Your task to perform on an android device: When is my next meeting? Image 0: 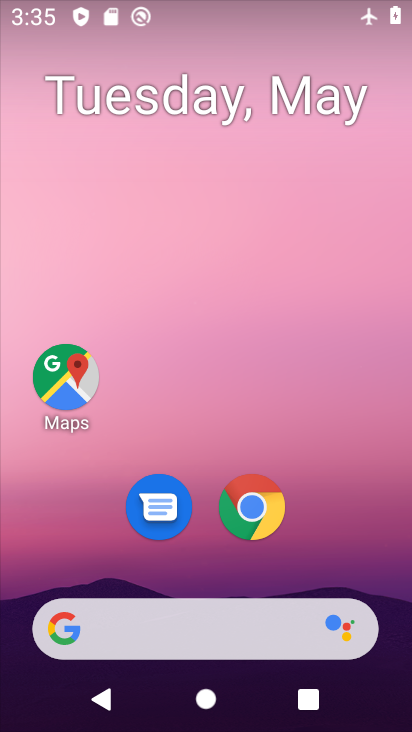
Step 0: drag from (366, 516) to (336, 86)
Your task to perform on an android device: When is my next meeting? Image 1: 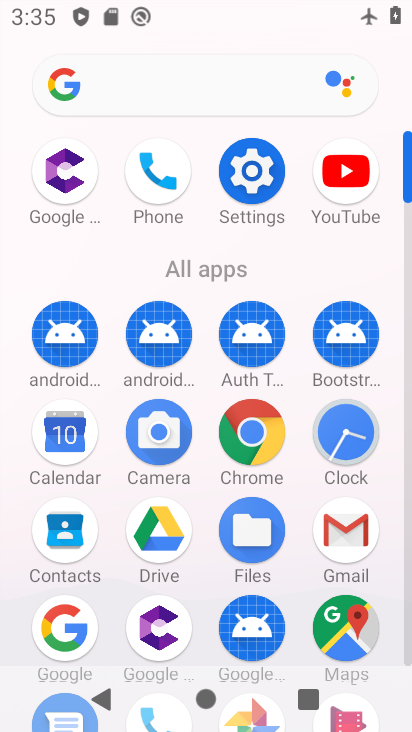
Step 1: click (75, 448)
Your task to perform on an android device: When is my next meeting? Image 2: 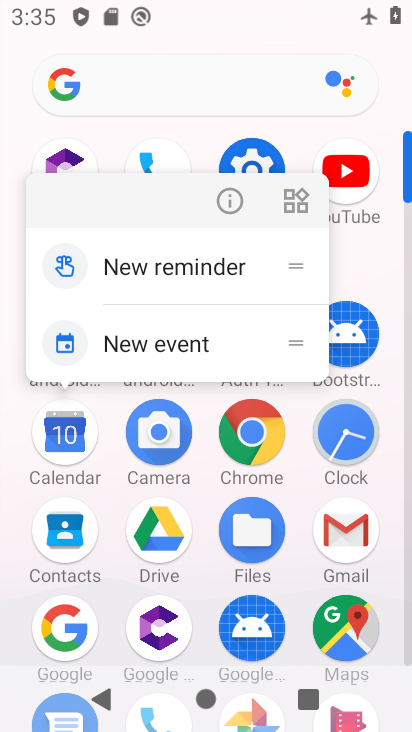
Step 2: click (75, 447)
Your task to perform on an android device: When is my next meeting? Image 3: 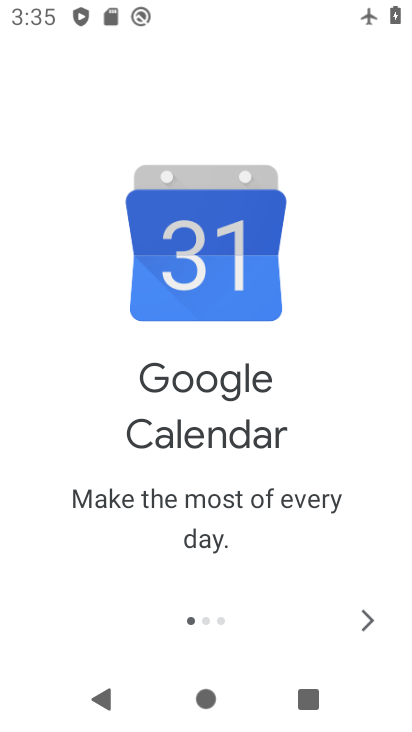
Step 3: click (364, 623)
Your task to perform on an android device: When is my next meeting? Image 4: 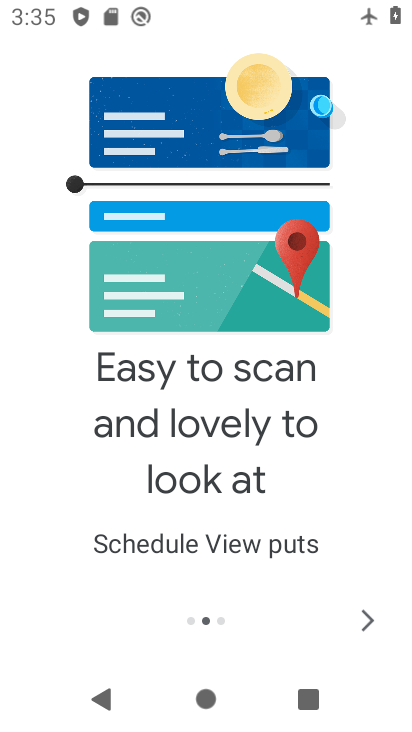
Step 4: click (364, 623)
Your task to perform on an android device: When is my next meeting? Image 5: 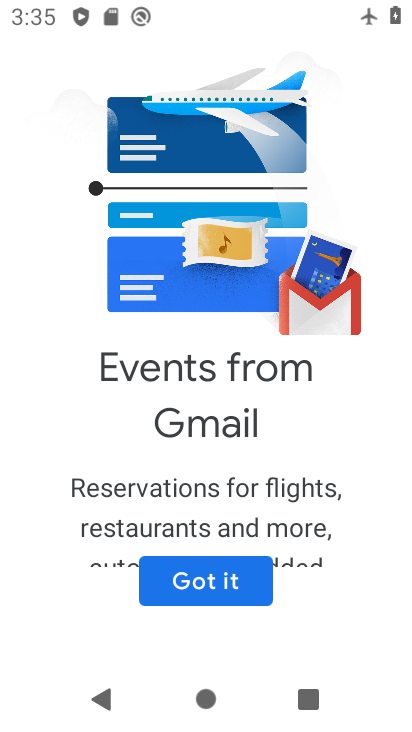
Step 5: click (240, 578)
Your task to perform on an android device: When is my next meeting? Image 6: 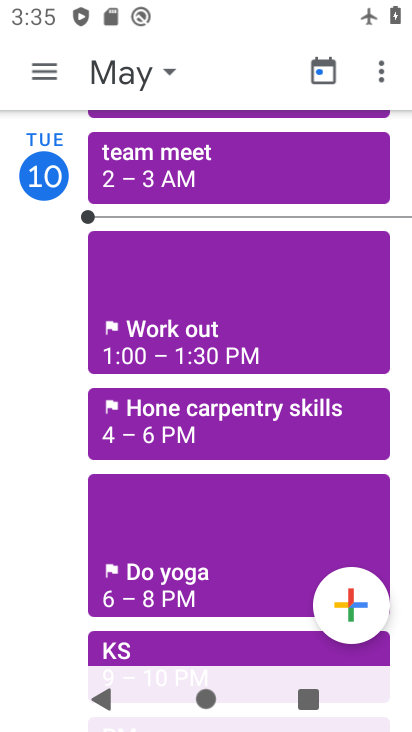
Step 6: drag from (148, 135) to (237, 638)
Your task to perform on an android device: When is my next meeting? Image 7: 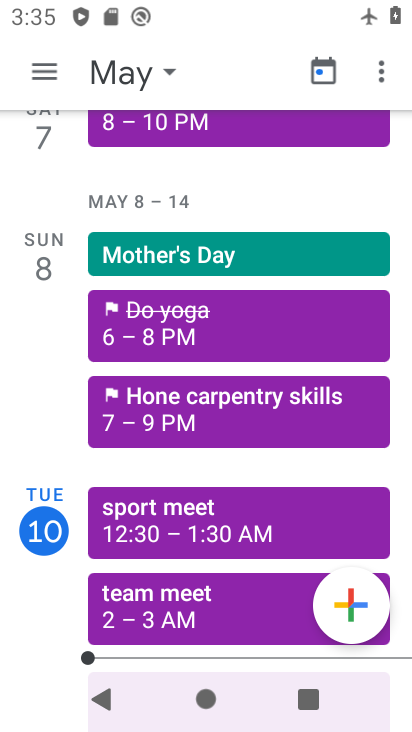
Step 7: drag from (224, 115) to (297, 489)
Your task to perform on an android device: When is my next meeting? Image 8: 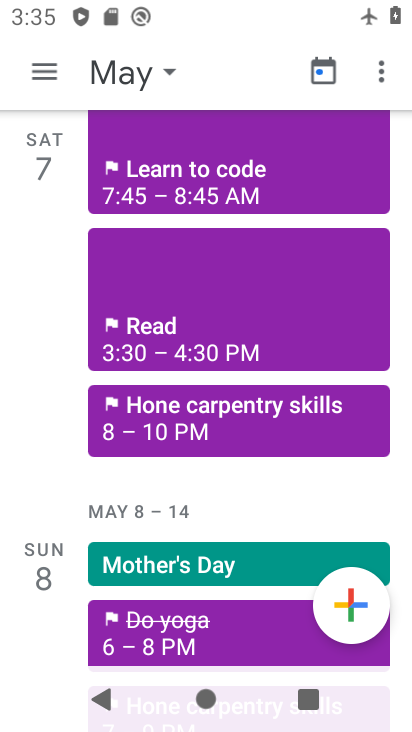
Step 8: click (151, 78)
Your task to perform on an android device: When is my next meeting? Image 9: 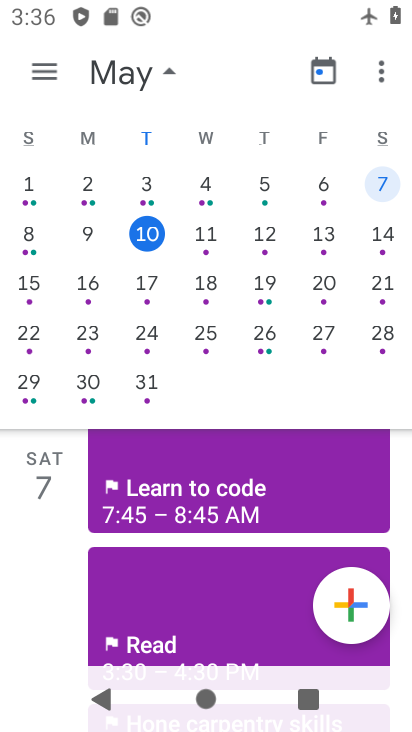
Step 9: click (207, 237)
Your task to perform on an android device: When is my next meeting? Image 10: 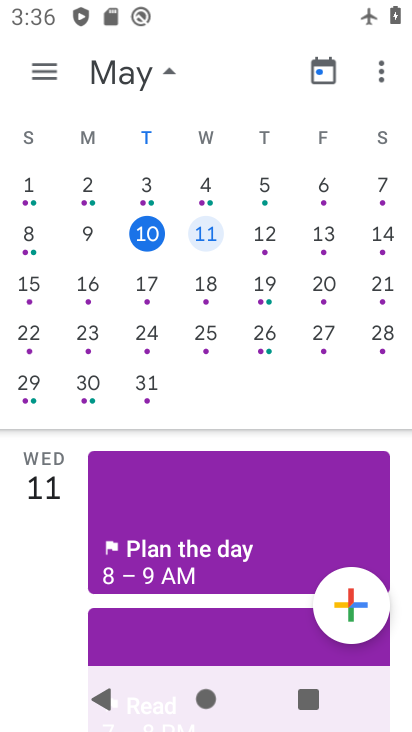
Step 10: task complete